Your task to perform on an android device: delete browsing data in the chrome app Image 0: 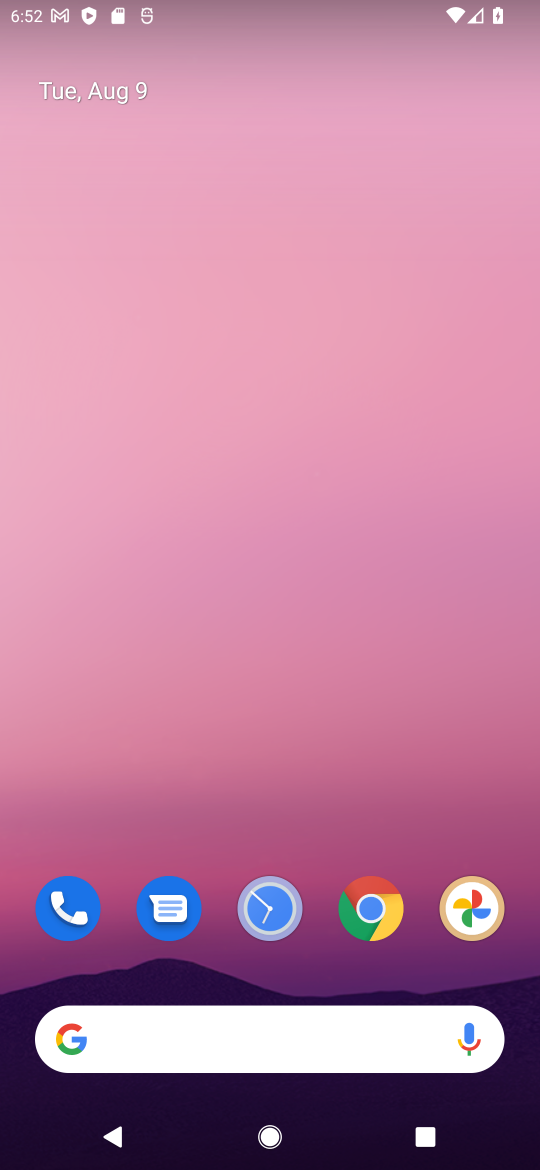
Step 0: drag from (307, 862) to (311, 160)
Your task to perform on an android device: delete browsing data in the chrome app Image 1: 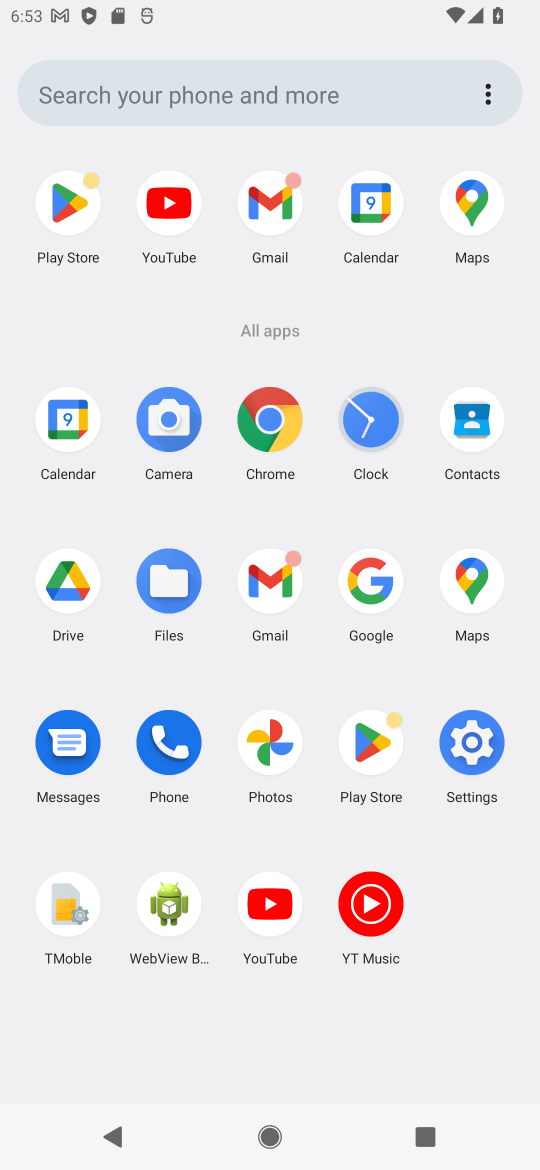
Step 1: click (272, 421)
Your task to perform on an android device: delete browsing data in the chrome app Image 2: 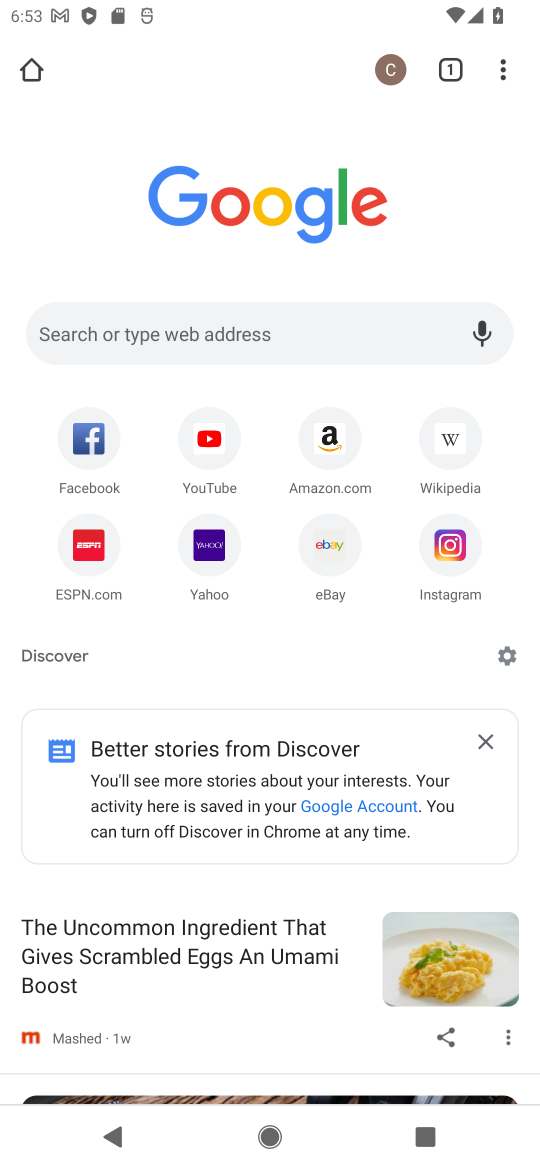
Step 2: click (501, 75)
Your task to perform on an android device: delete browsing data in the chrome app Image 3: 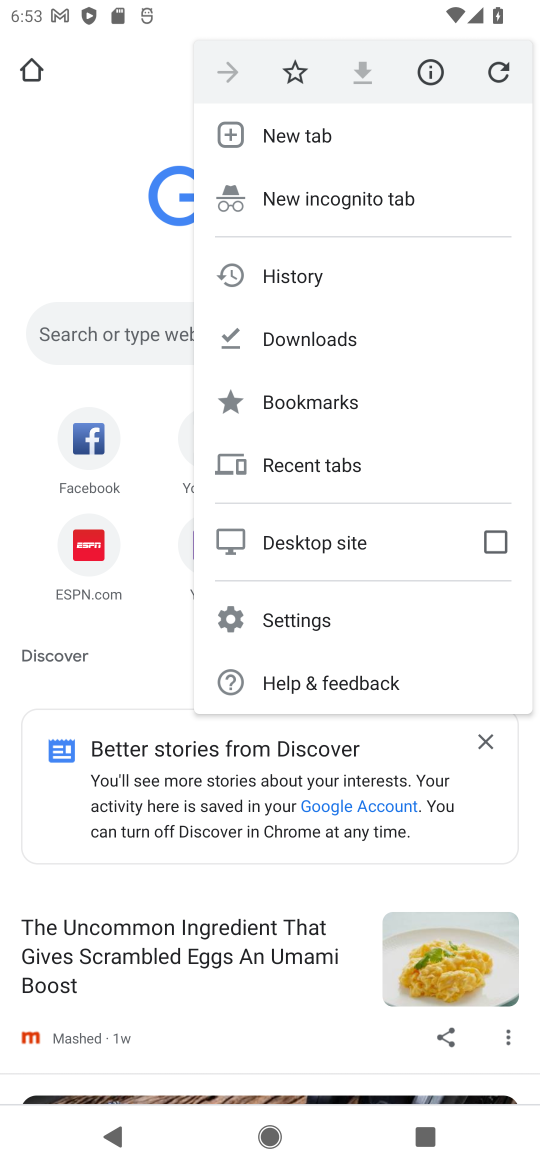
Step 3: click (293, 275)
Your task to perform on an android device: delete browsing data in the chrome app Image 4: 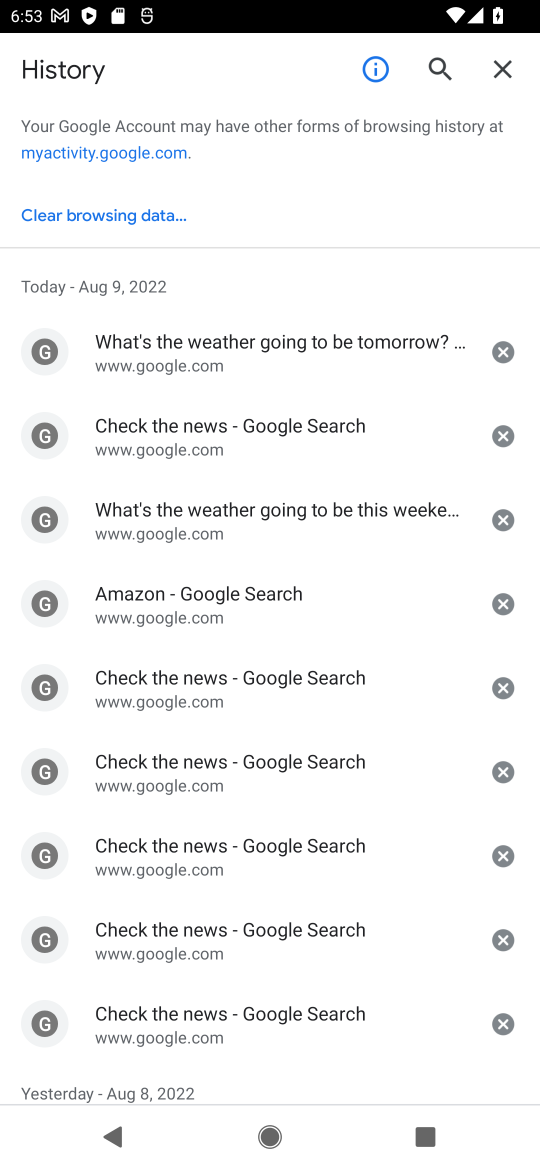
Step 4: click (130, 214)
Your task to perform on an android device: delete browsing data in the chrome app Image 5: 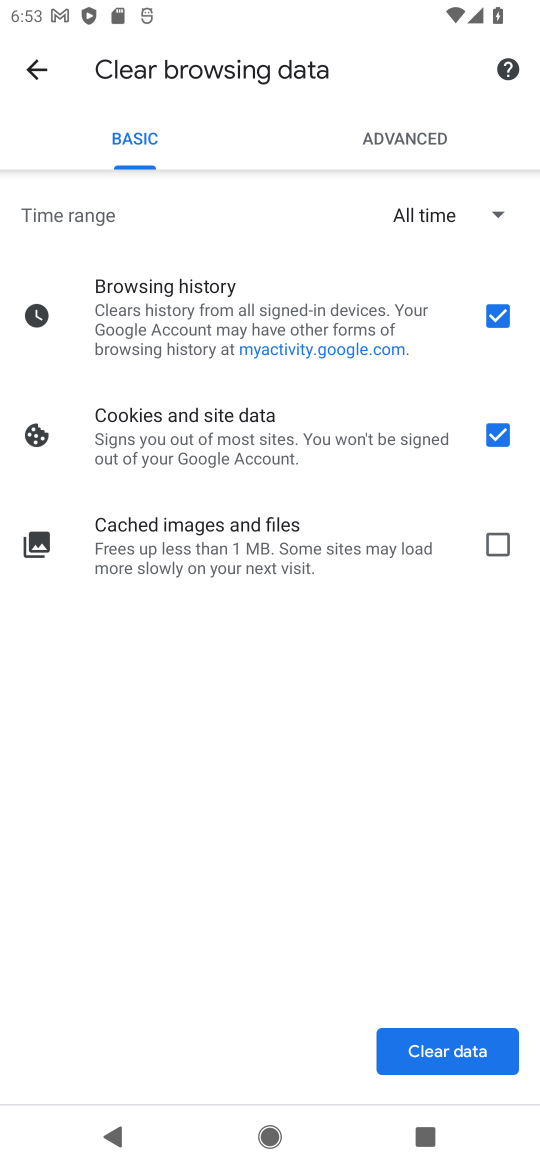
Step 5: click (494, 439)
Your task to perform on an android device: delete browsing data in the chrome app Image 6: 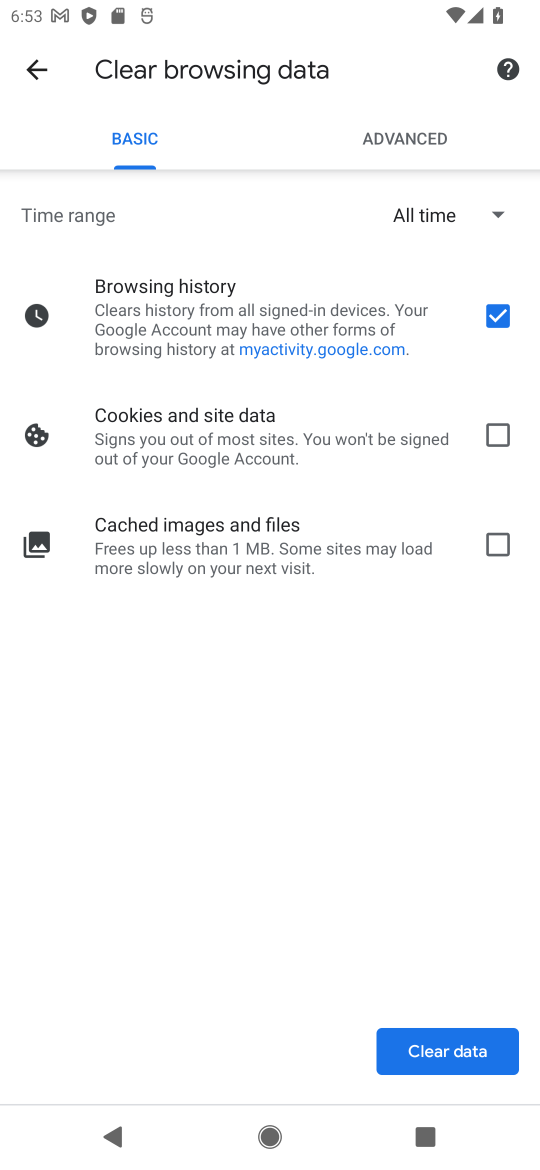
Step 6: click (479, 1049)
Your task to perform on an android device: delete browsing data in the chrome app Image 7: 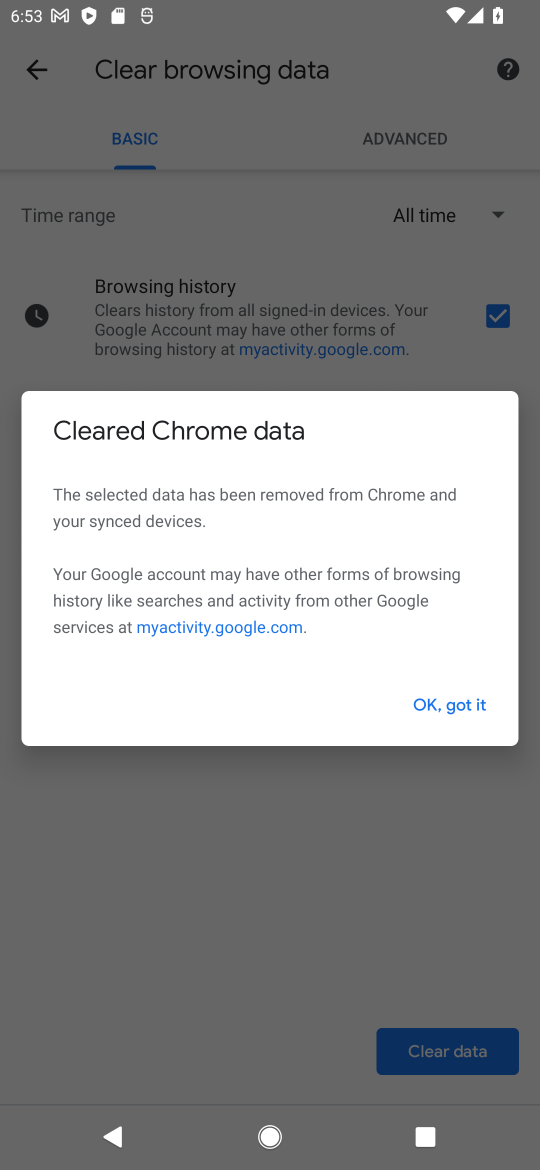
Step 7: click (436, 698)
Your task to perform on an android device: delete browsing data in the chrome app Image 8: 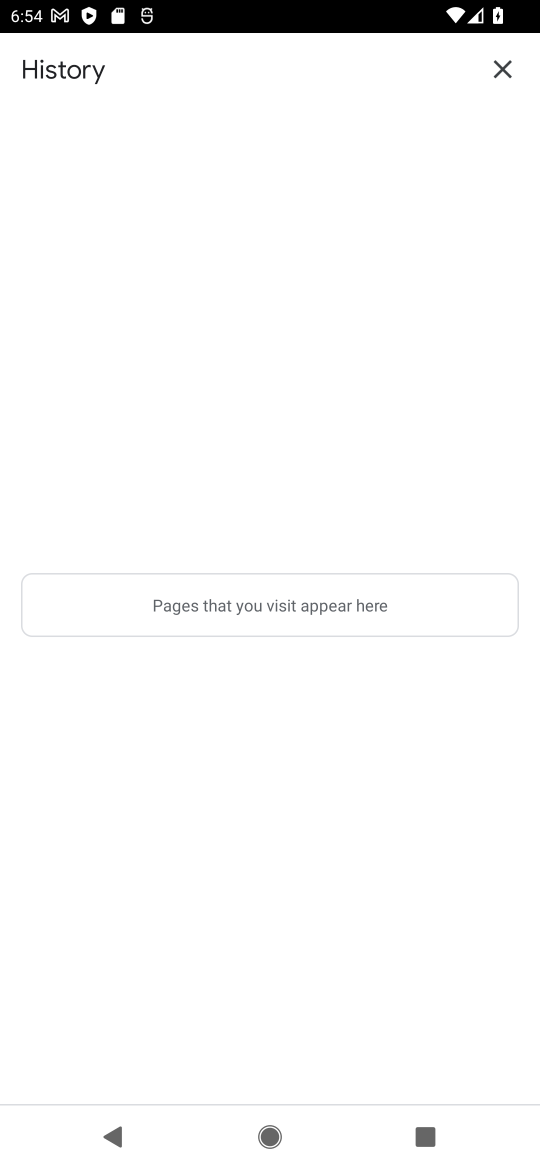
Step 8: task complete